Your task to perform on an android device: toggle show notifications on the lock screen Image 0: 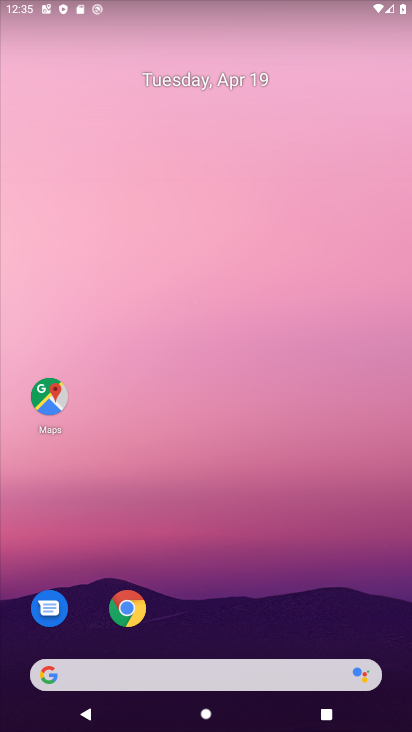
Step 0: drag from (208, 657) to (332, 96)
Your task to perform on an android device: toggle show notifications on the lock screen Image 1: 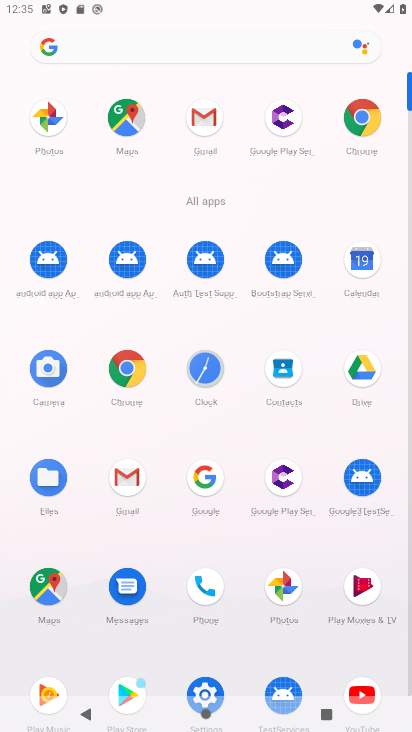
Step 1: drag from (334, 477) to (363, 364)
Your task to perform on an android device: toggle show notifications on the lock screen Image 2: 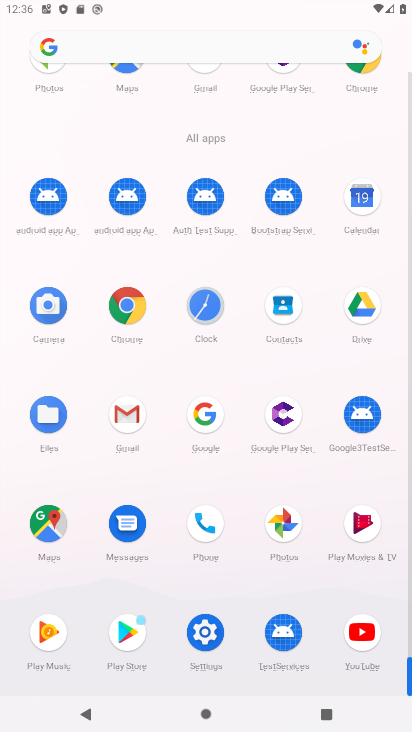
Step 2: click (208, 625)
Your task to perform on an android device: toggle show notifications on the lock screen Image 3: 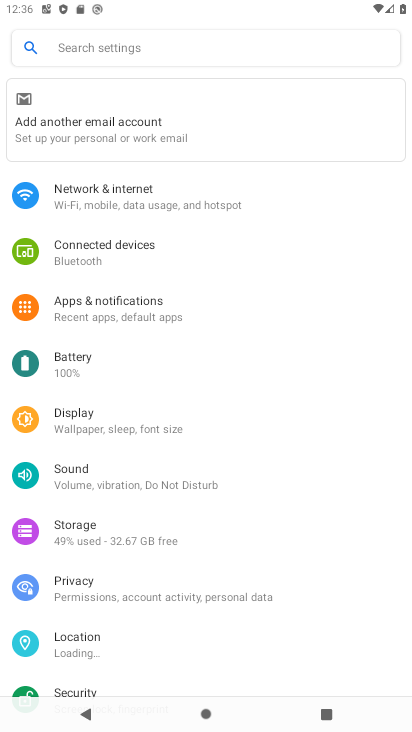
Step 3: click (189, 315)
Your task to perform on an android device: toggle show notifications on the lock screen Image 4: 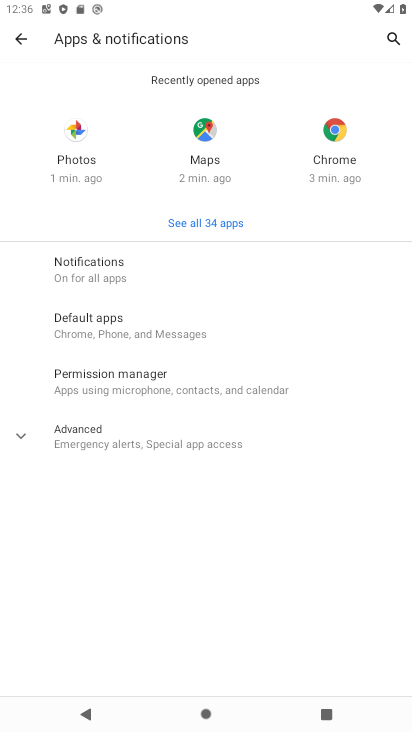
Step 4: click (95, 277)
Your task to perform on an android device: toggle show notifications on the lock screen Image 5: 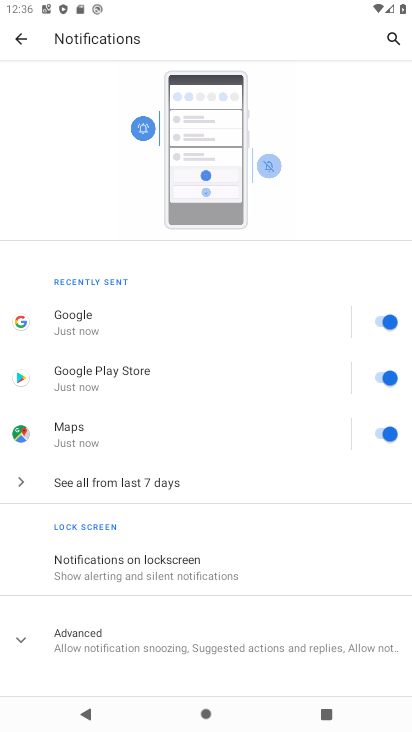
Step 5: click (186, 566)
Your task to perform on an android device: toggle show notifications on the lock screen Image 6: 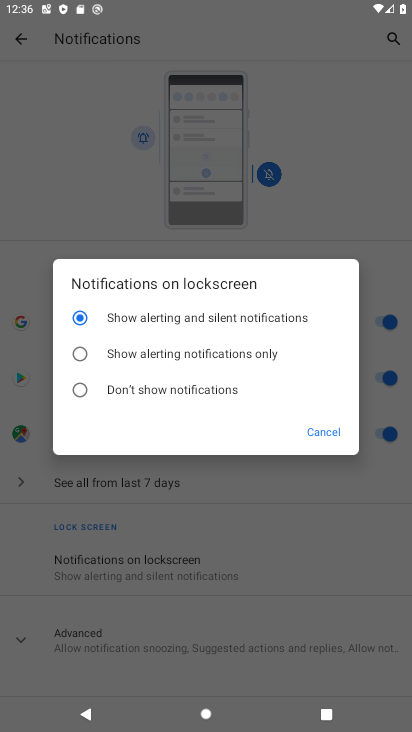
Step 6: click (82, 350)
Your task to perform on an android device: toggle show notifications on the lock screen Image 7: 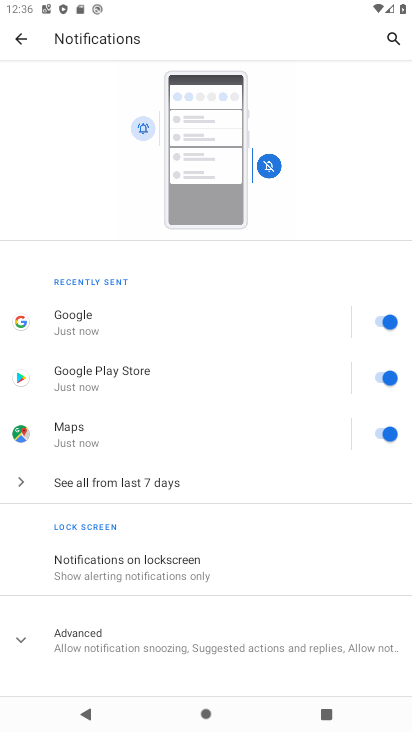
Step 7: task complete